Your task to perform on an android device: check data usage Image 0: 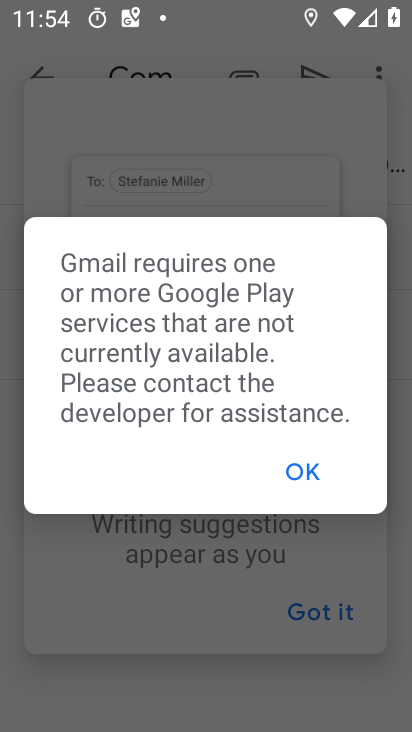
Step 0: press home button
Your task to perform on an android device: check data usage Image 1: 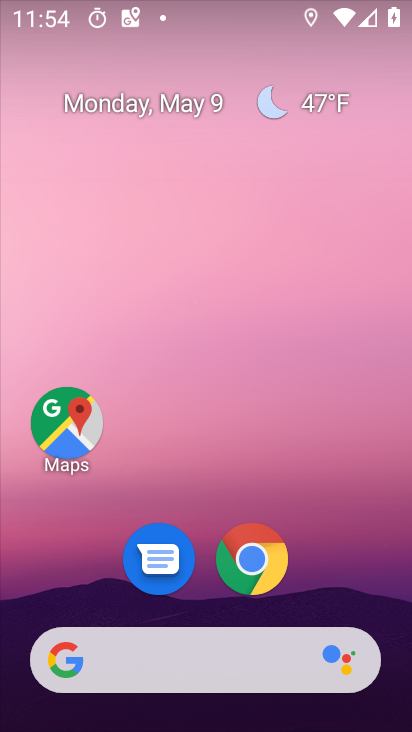
Step 1: drag from (215, 12) to (176, 473)
Your task to perform on an android device: check data usage Image 2: 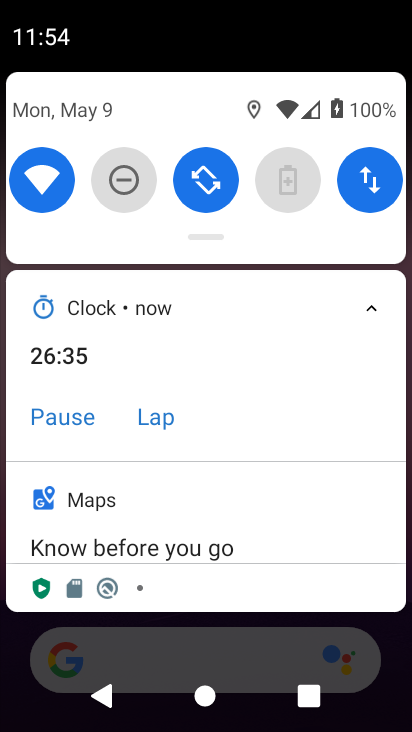
Step 2: click (360, 189)
Your task to perform on an android device: check data usage Image 3: 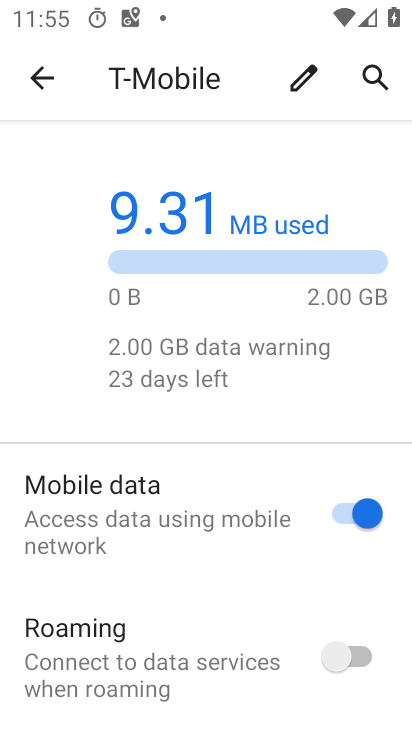
Step 3: task complete